Your task to perform on an android device: turn on improve location accuracy Image 0: 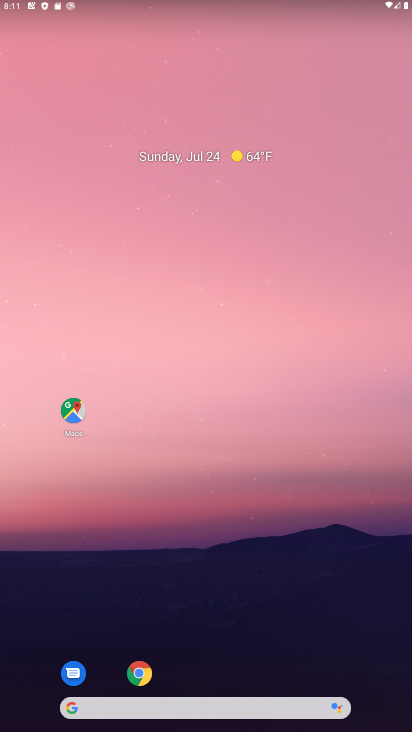
Step 0: drag from (295, 648) to (255, 118)
Your task to perform on an android device: turn on improve location accuracy Image 1: 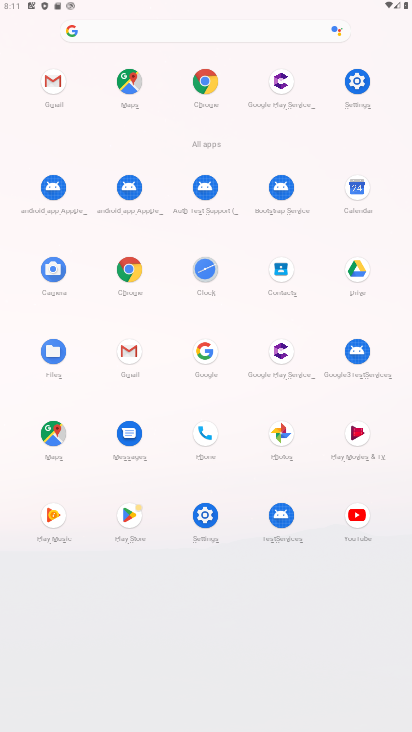
Step 1: click (208, 521)
Your task to perform on an android device: turn on improve location accuracy Image 2: 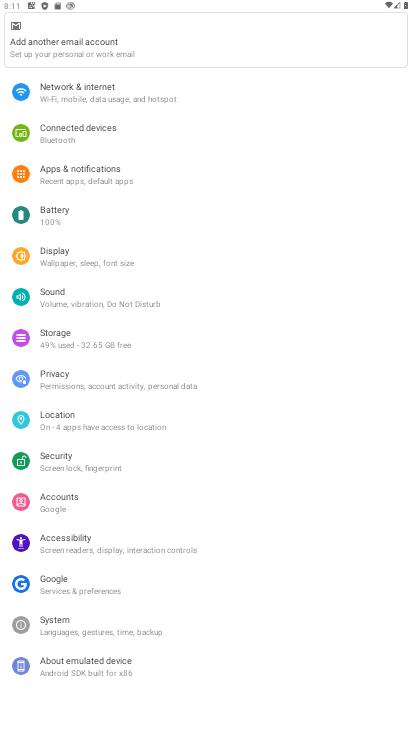
Step 2: click (138, 420)
Your task to perform on an android device: turn on improve location accuracy Image 3: 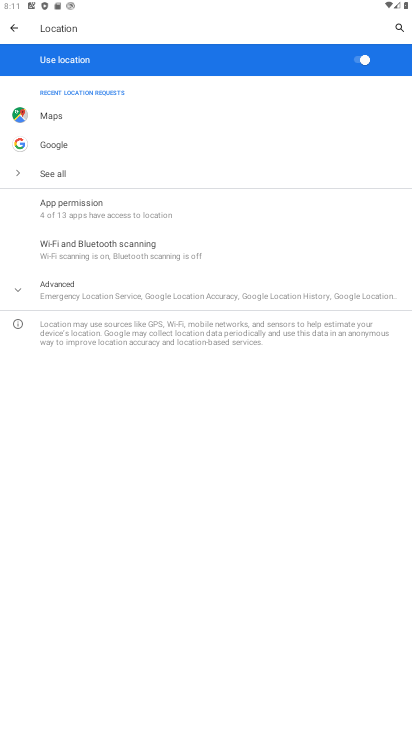
Step 3: click (161, 291)
Your task to perform on an android device: turn on improve location accuracy Image 4: 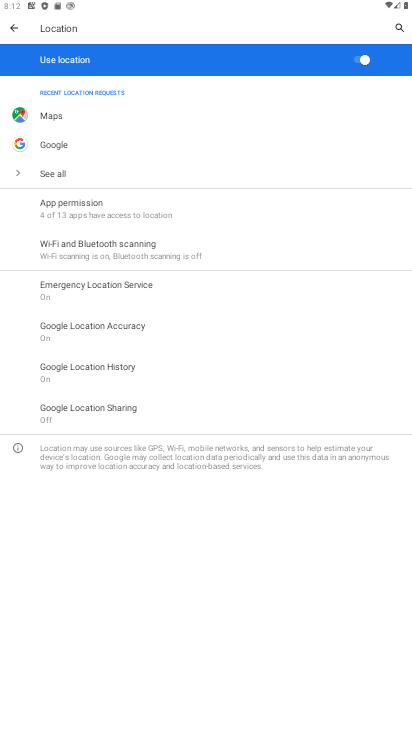
Step 4: click (135, 328)
Your task to perform on an android device: turn on improve location accuracy Image 5: 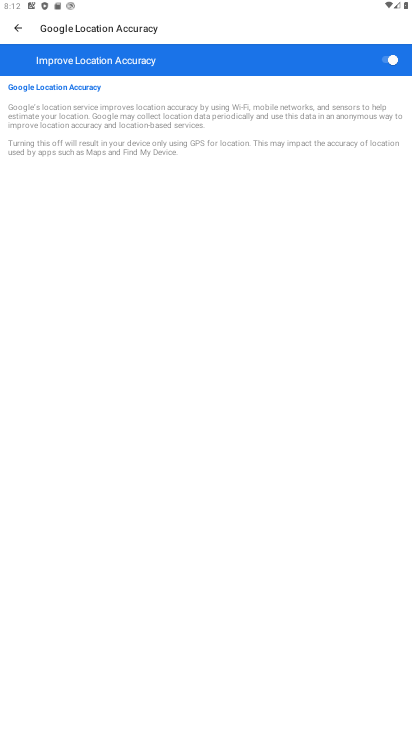
Step 5: task complete